Your task to perform on an android device: What's on my calendar tomorrow? Image 0: 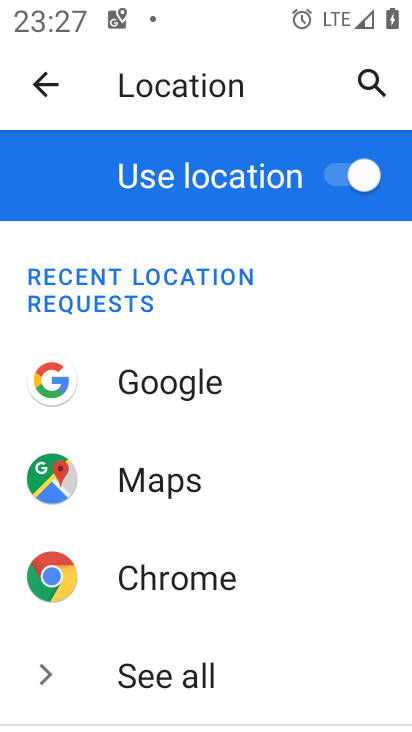
Step 0: press home button
Your task to perform on an android device: What's on my calendar tomorrow? Image 1: 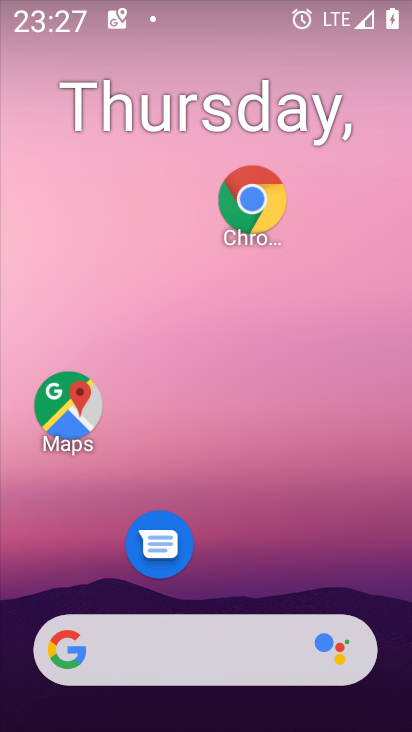
Step 1: click (220, 125)
Your task to perform on an android device: What's on my calendar tomorrow? Image 2: 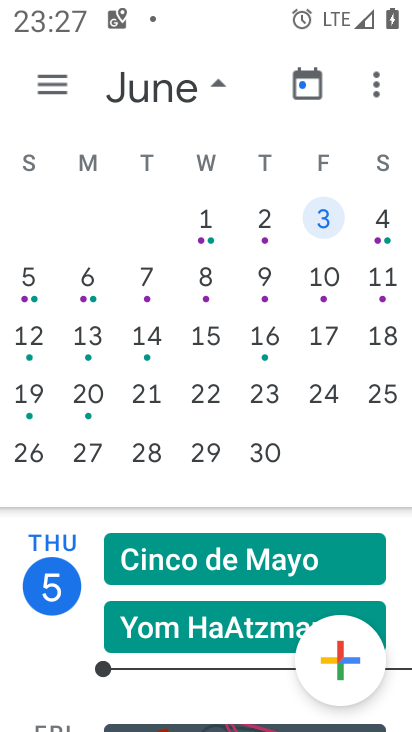
Step 2: click (387, 231)
Your task to perform on an android device: What's on my calendar tomorrow? Image 3: 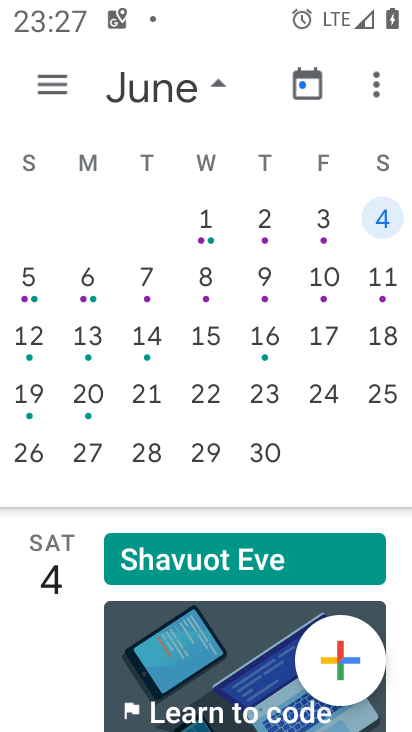
Step 3: task complete